Your task to perform on an android device: Find coffee shops on Maps Image 0: 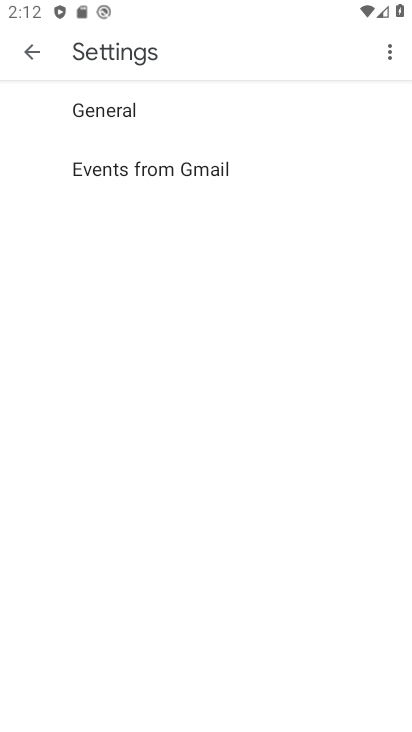
Step 0: press home button
Your task to perform on an android device: Find coffee shops on Maps Image 1: 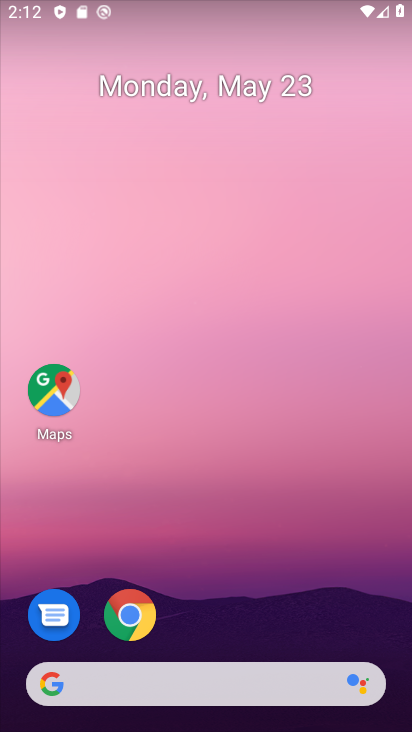
Step 1: drag from (365, 627) to (368, 225)
Your task to perform on an android device: Find coffee shops on Maps Image 2: 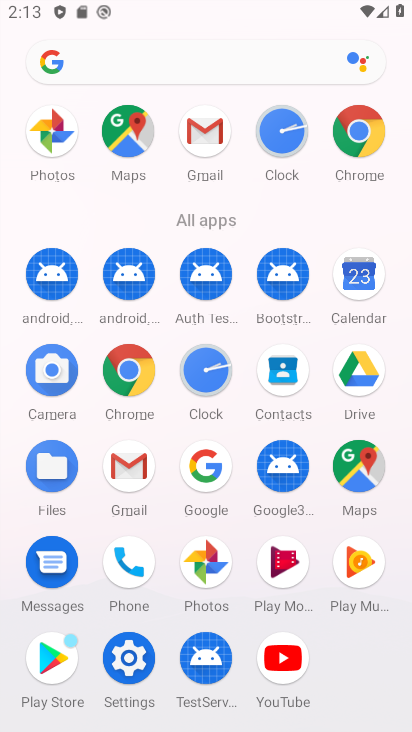
Step 2: click (374, 489)
Your task to perform on an android device: Find coffee shops on Maps Image 3: 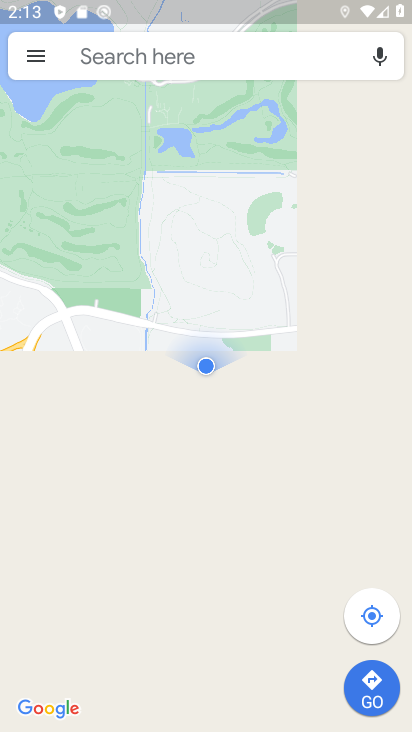
Step 3: click (251, 51)
Your task to perform on an android device: Find coffee shops on Maps Image 4: 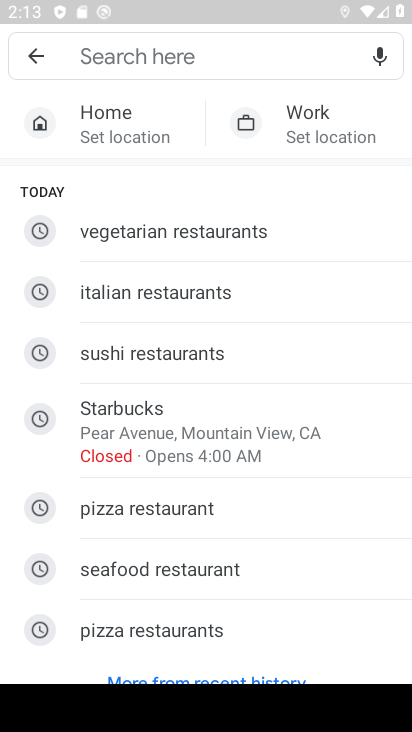
Step 4: type "coffee"
Your task to perform on an android device: Find coffee shops on Maps Image 5: 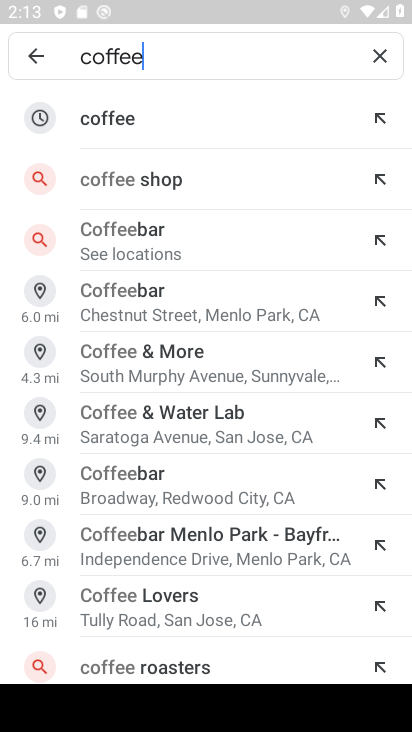
Step 5: click (255, 122)
Your task to perform on an android device: Find coffee shops on Maps Image 6: 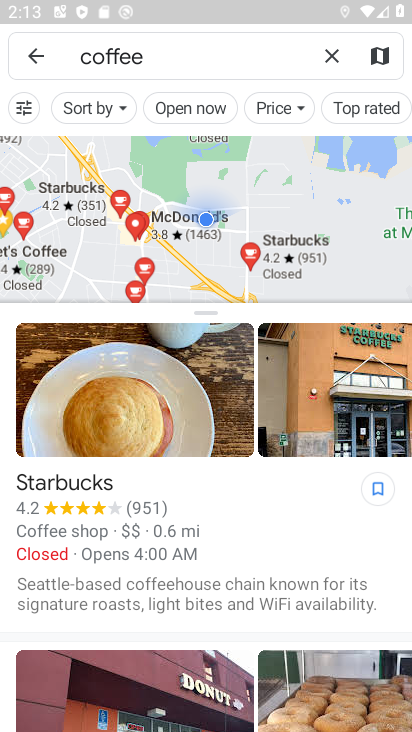
Step 6: task complete